Your task to perform on an android device: Set the phone to "Do not disturb". Image 0: 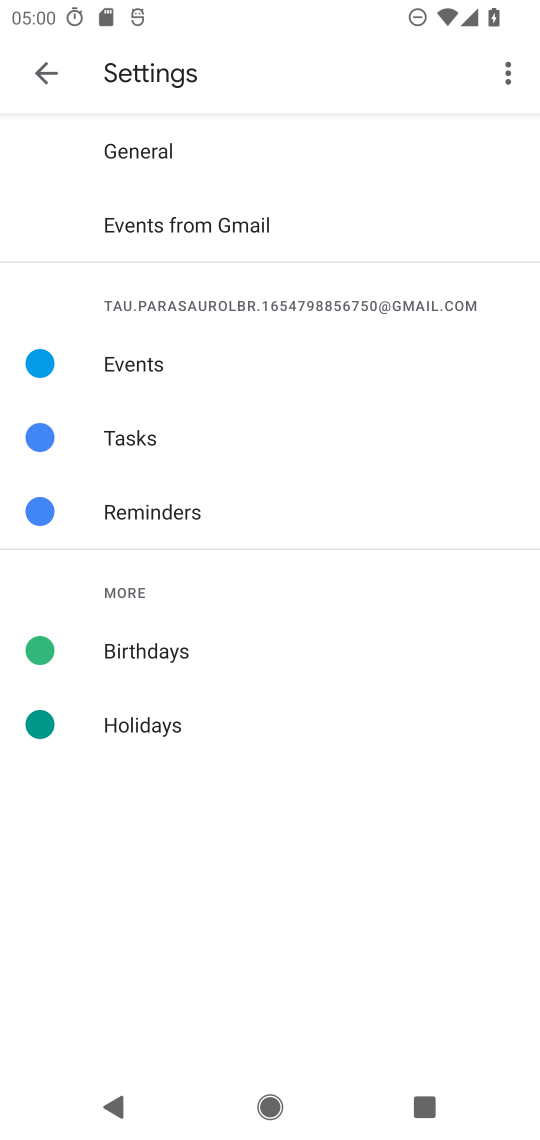
Step 0: press home button
Your task to perform on an android device: Set the phone to "Do not disturb". Image 1: 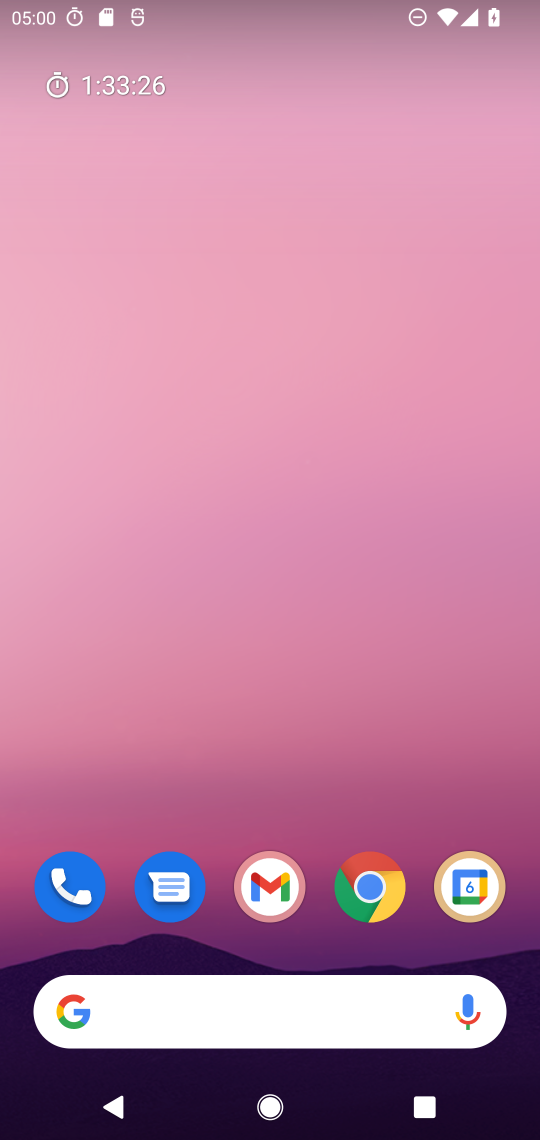
Step 1: drag from (307, 785) to (346, 226)
Your task to perform on an android device: Set the phone to "Do not disturb". Image 2: 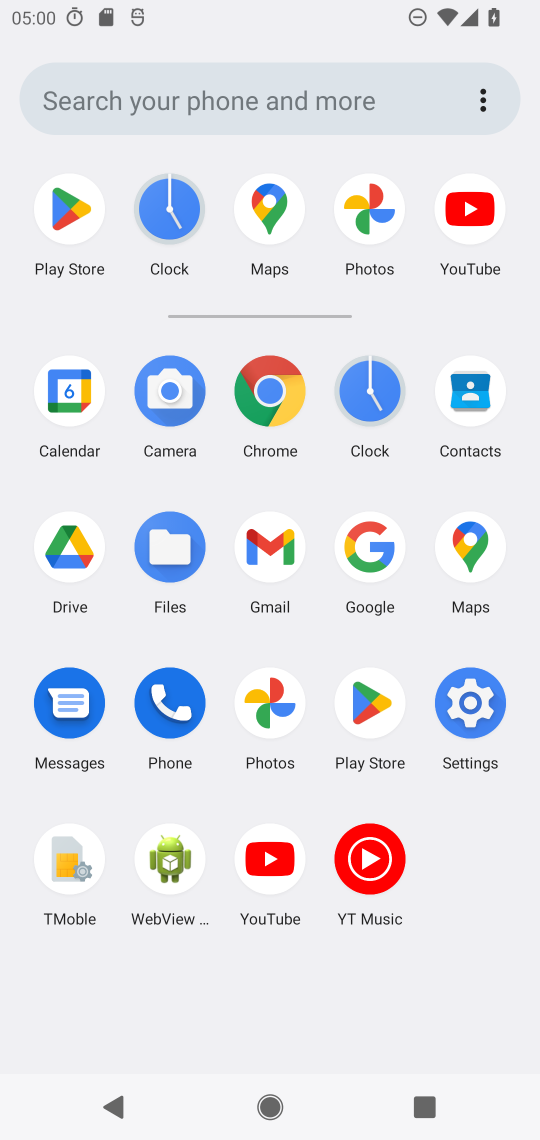
Step 2: click (485, 688)
Your task to perform on an android device: Set the phone to "Do not disturb". Image 3: 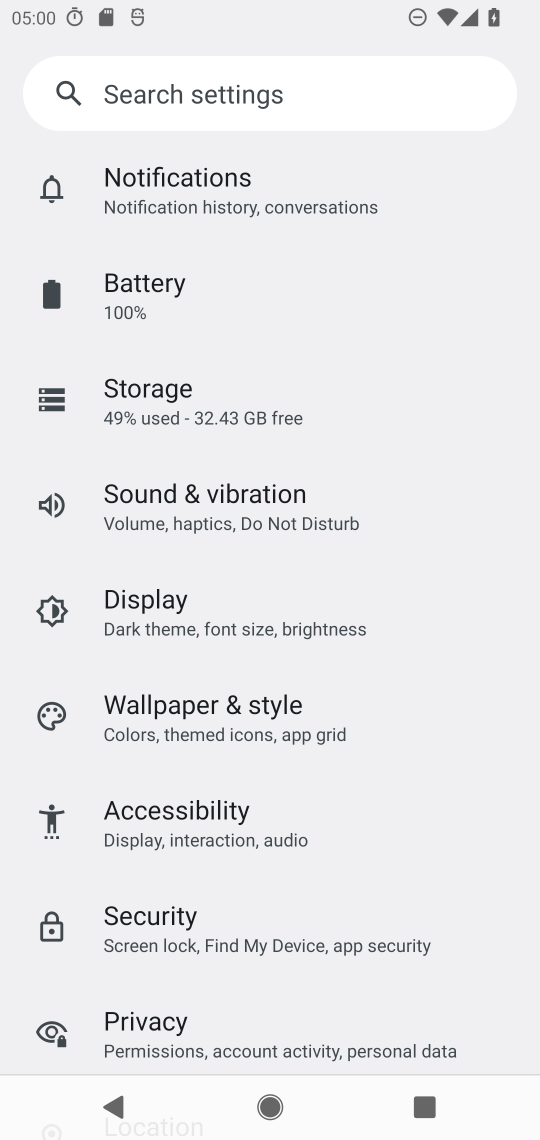
Step 3: drag from (440, 781) to (437, 578)
Your task to perform on an android device: Set the phone to "Do not disturb". Image 4: 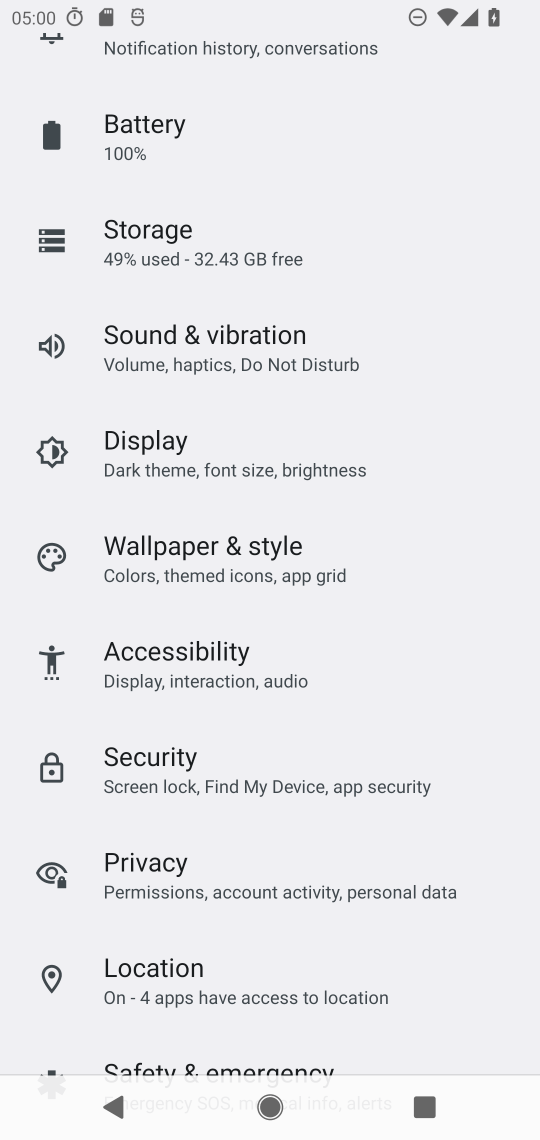
Step 4: drag from (451, 834) to (460, 615)
Your task to perform on an android device: Set the phone to "Do not disturb". Image 5: 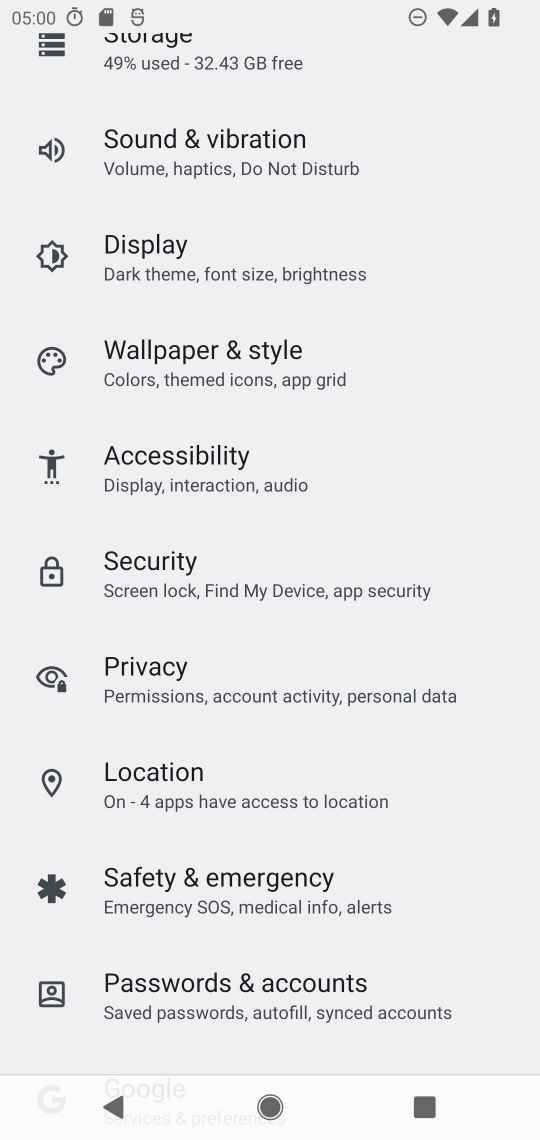
Step 5: drag from (465, 866) to (455, 661)
Your task to perform on an android device: Set the phone to "Do not disturb". Image 6: 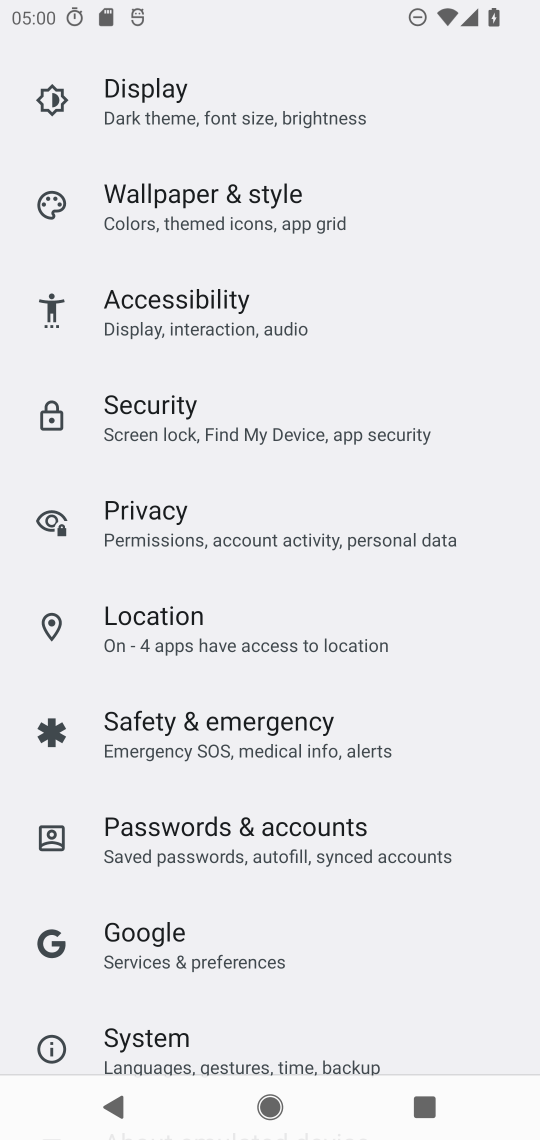
Step 6: drag from (459, 833) to (453, 624)
Your task to perform on an android device: Set the phone to "Do not disturb". Image 7: 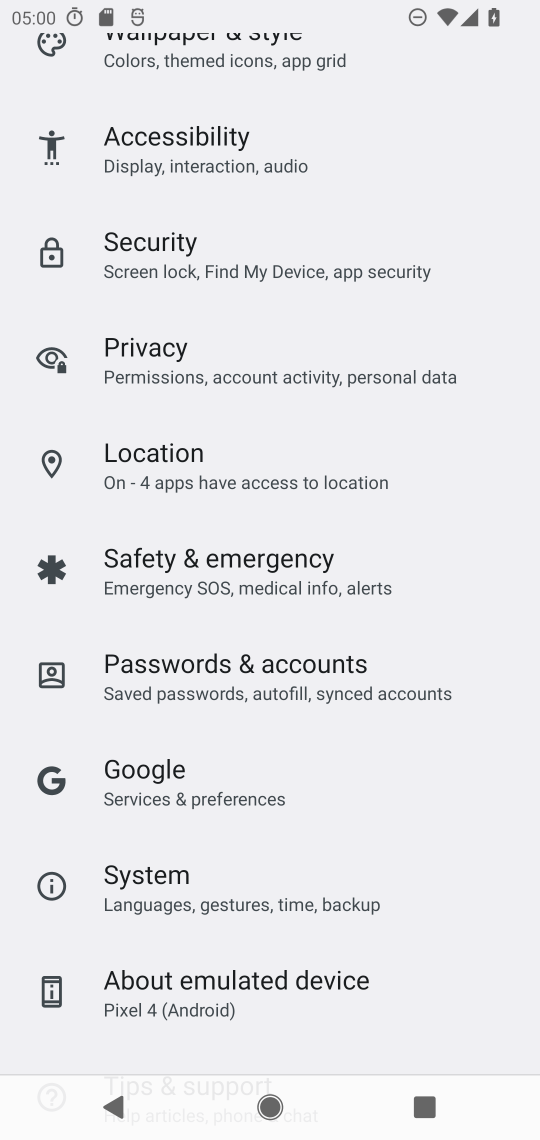
Step 7: drag from (445, 850) to (445, 660)
Your task to perform on an android device: Set the phone to "Do not disturb". Image 8: 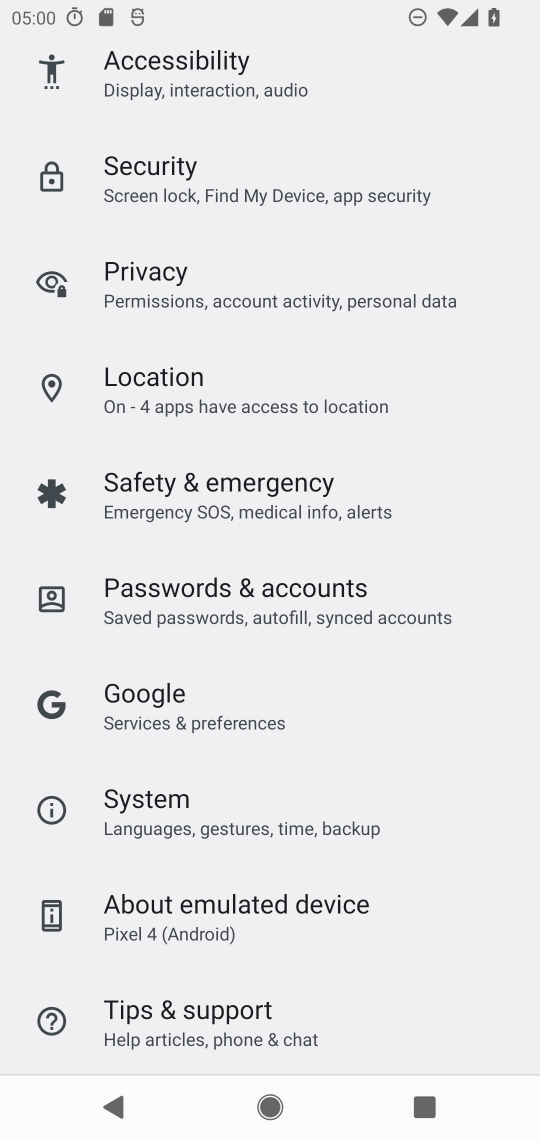
Step 8: drag from (440, 429) to (454, 644)
Your task to perform on an android device: Set the phone to "Do not disturb". Image 9: 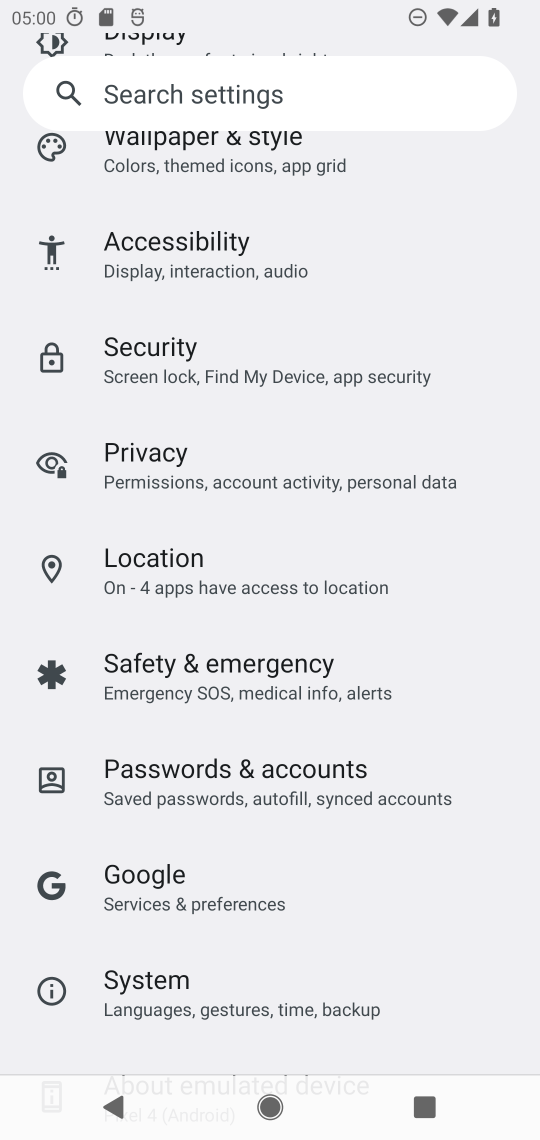
Step 9: drag from (466, 362) to (480, 522)
Your task to perform on an android device: Set the phone to "Do not disturb". Image 10: 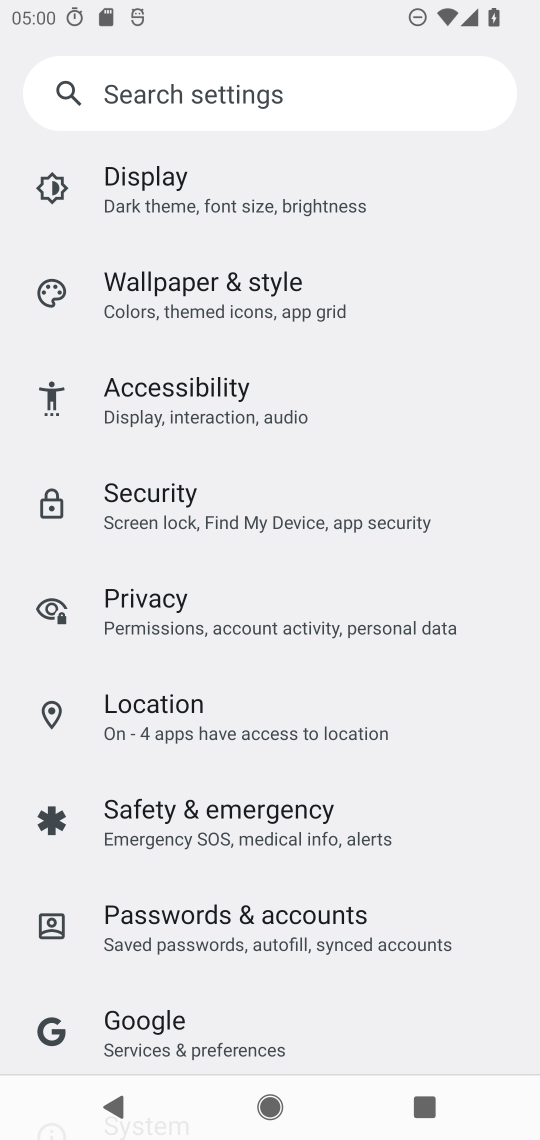
Step 10: drag from (450, 372) to (460, 560)
Your task to perform on an android device: Set the phone to "Do not disturb". Image 11: 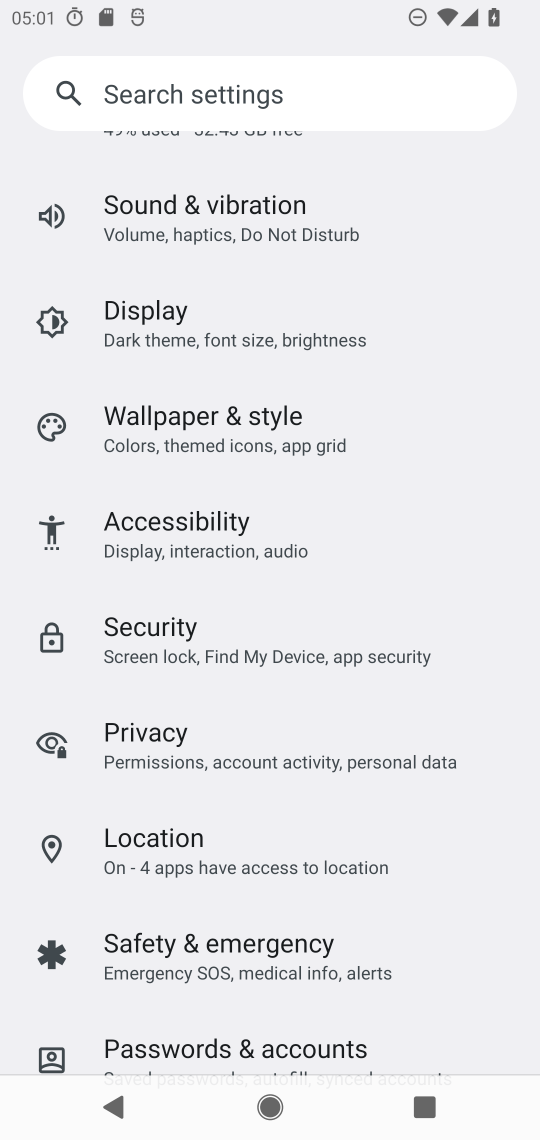
Step 11: drag from (447, 302) to (453, 606)
Your task to perform on an android device: Set the phone to "Do not disturb". Image 12: 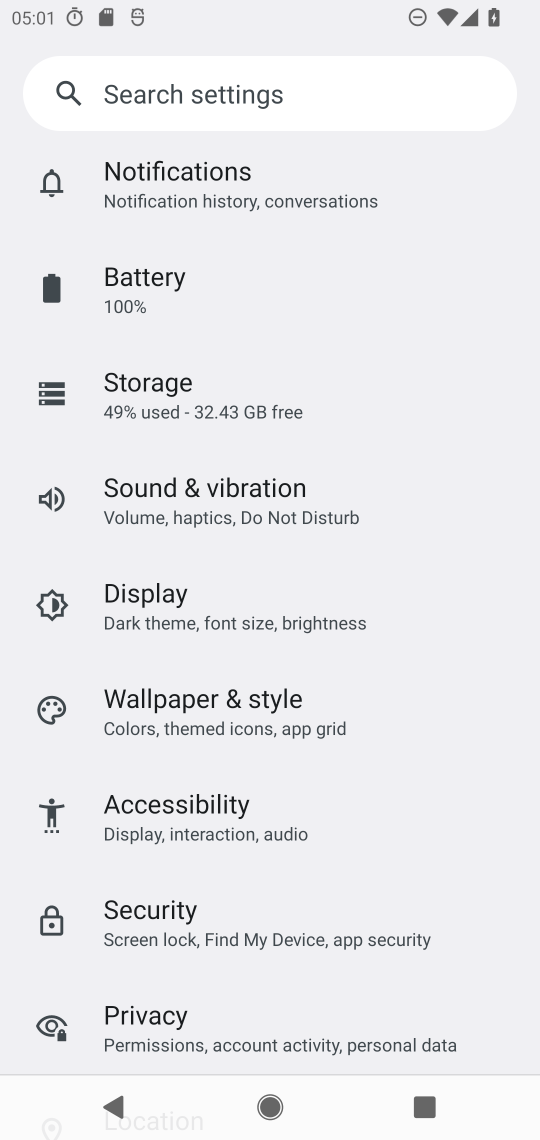
Step 12: drag from (443, 242) to (441, 520)
Your task to perform on an android device: Set the phone to "Do not disturb". Image 13: 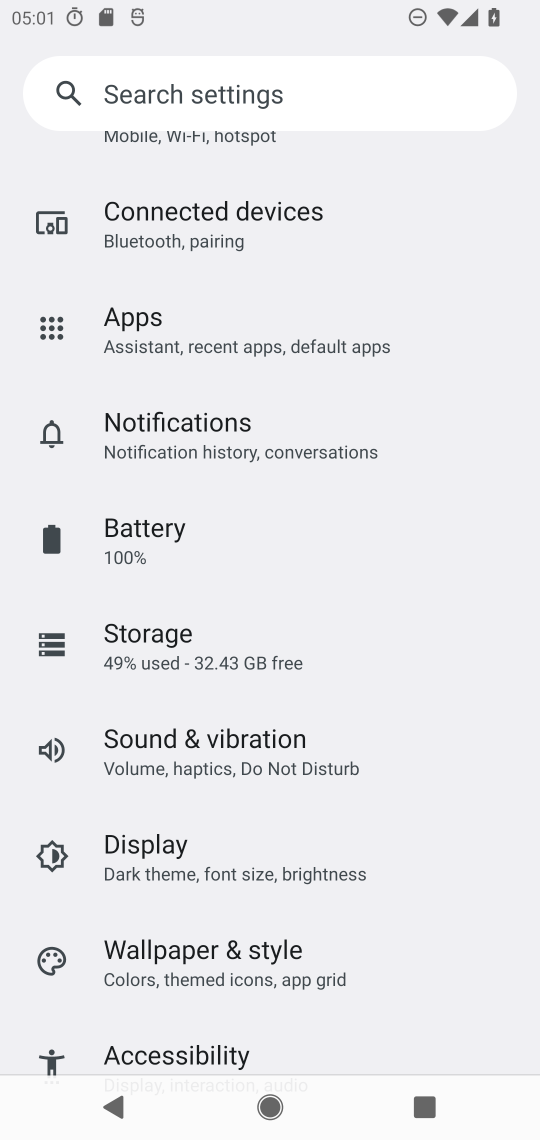
Step 13: click (333, 738)
Your task to perform on an android device: Set the phone to "Do not disturb". Image 14: 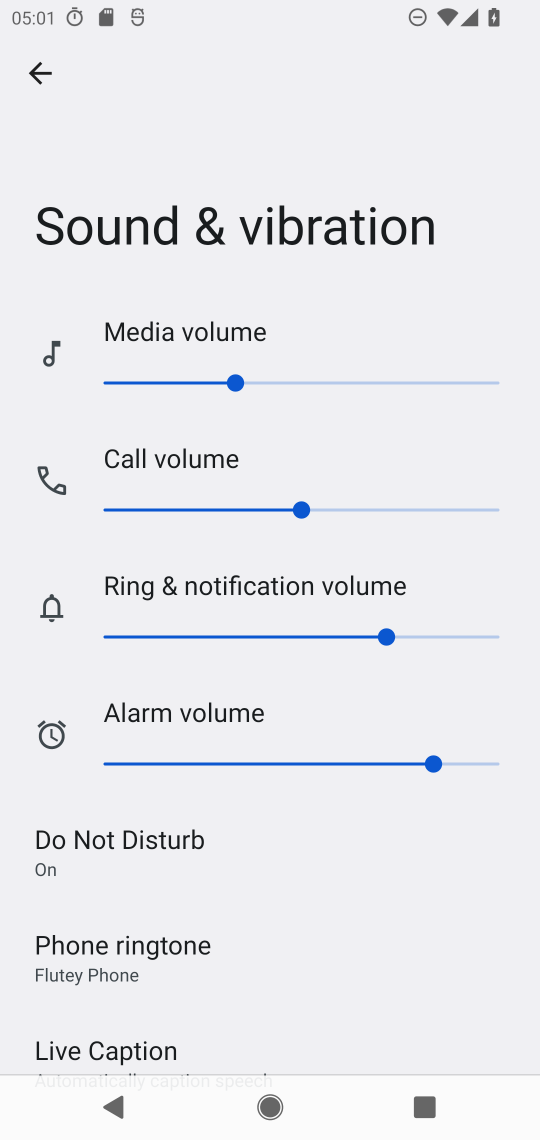
Step 14: task complete